Your task to perform on an android device: Search for Mexican restaurants on Maps Image 0: 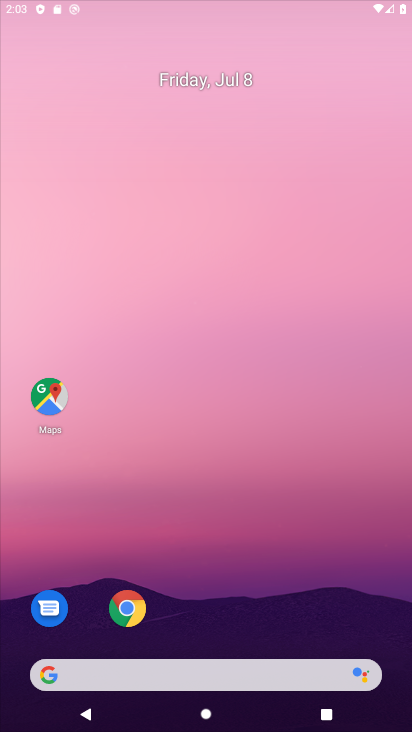
Step 0: drag from (323, 663) to (330, 2)
Your task to perform on an android device: Search for Mexican restaurants on Maps Image 1: 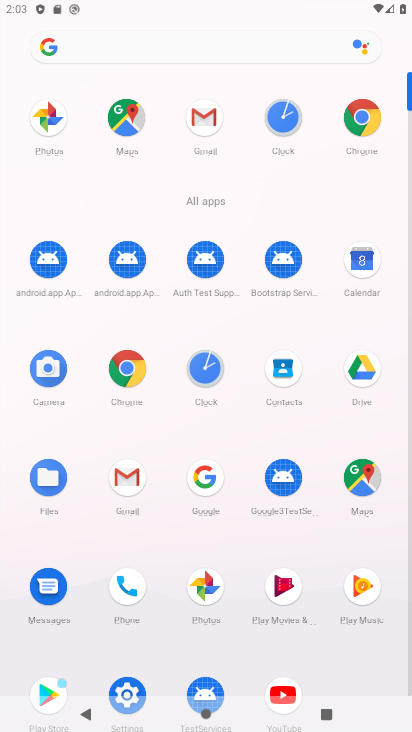
Step 1: click (368, 486)
Your task to perform on an android device: Search for Mexican restaurants on Maps Image 2: 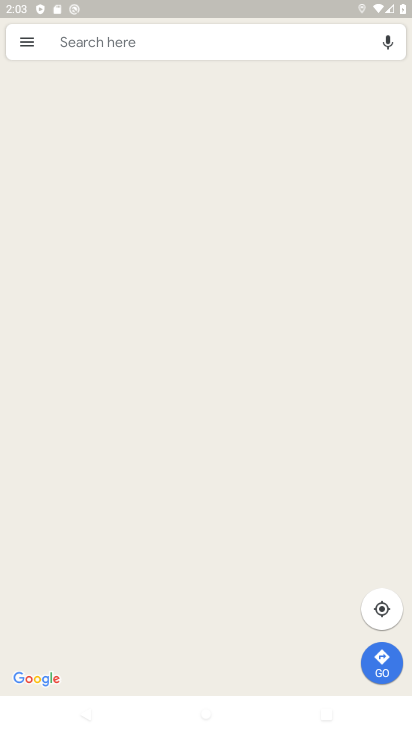
Step 2: click (158, 45)
Your task to perform on an android device: Search for Mexican restaurants on Maps Image 3: 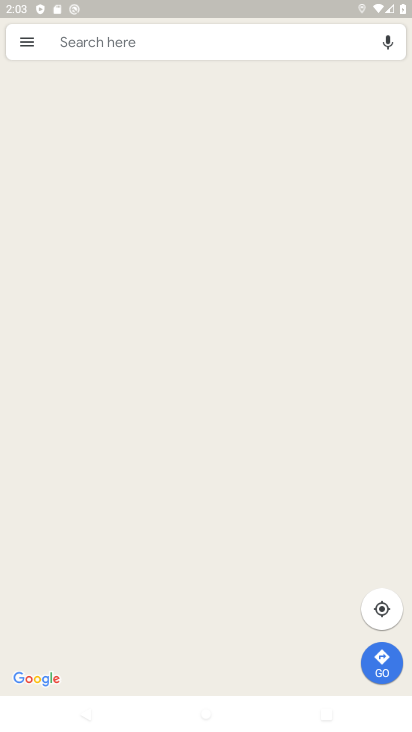
Step 3: click (158, 45)
Your task to perform on an android device: Search for Mexican restaurants on Maps Image 4: 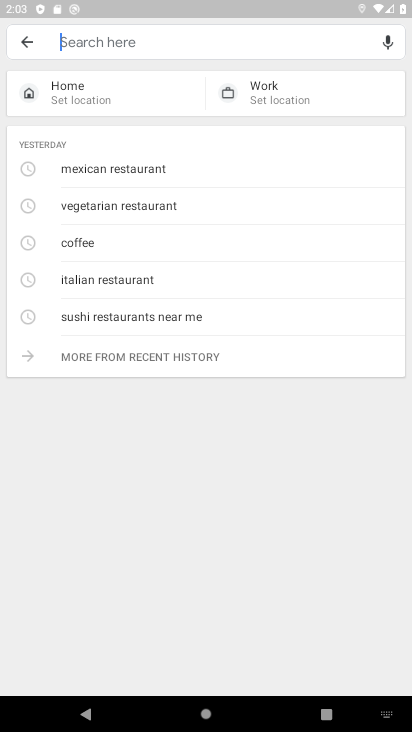
Step 4: type "mexican restaurant"
Your task to perform on an android device: Search for Mexican restaurants on Maps Image 5: 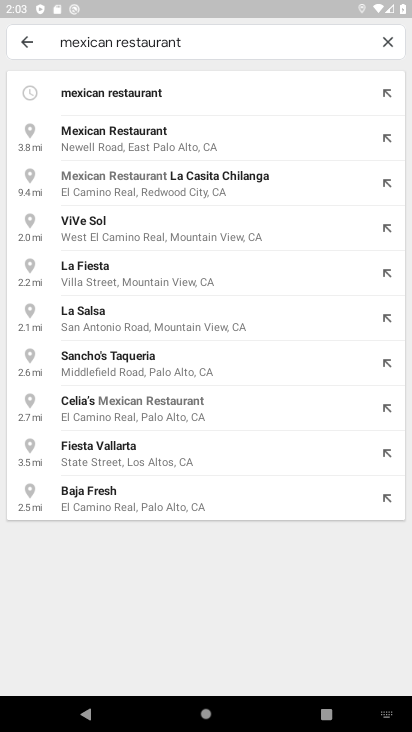
Step 5: click (129, 95)
Your task to perform on an android device: Search for Mexican restaurants on Maps Image 6: 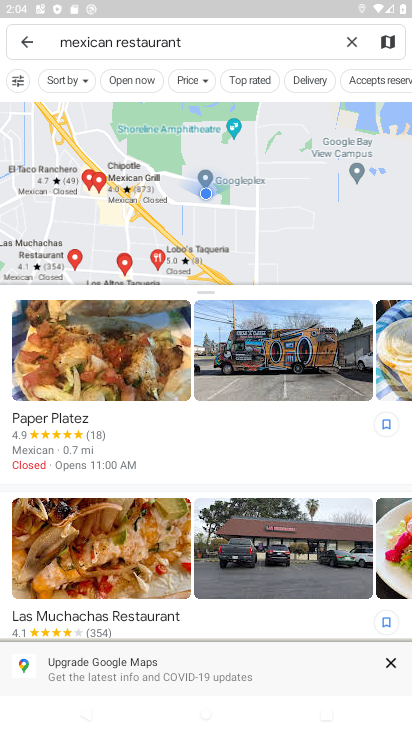
Step 6: task complete